Your task to perform on an android device: find which apps use the phone's location Image 0: 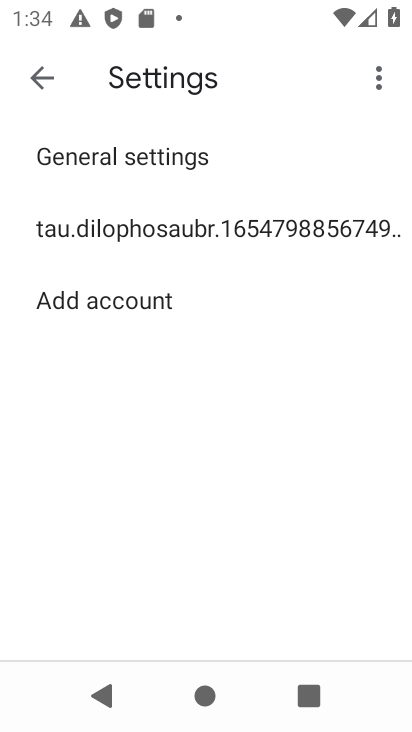
Step 0: press home button
Your task to perform on an android device: find which apps use the phone's location Image 1: 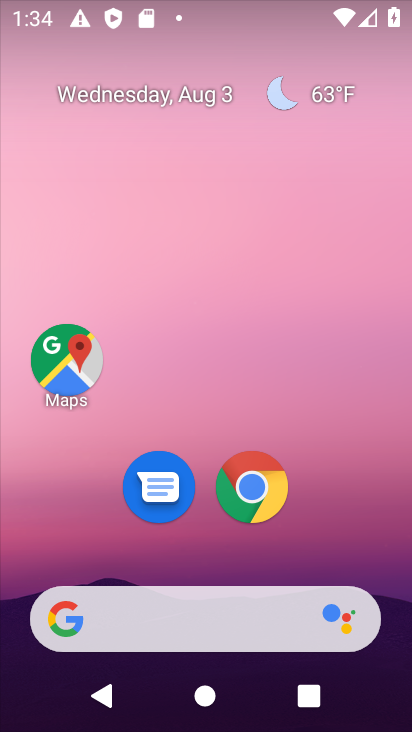
Step 1: drag from (285, 542) to (403, 93)
Your task to perform on an android device: find which apps use the phone's location Image 2: 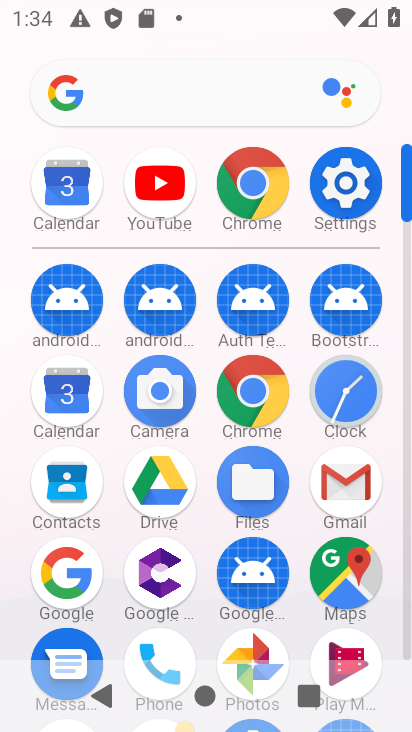
Step 2: click (164, 643)
Your task to perform on an android device: find which apps use the phone's location Image 3: 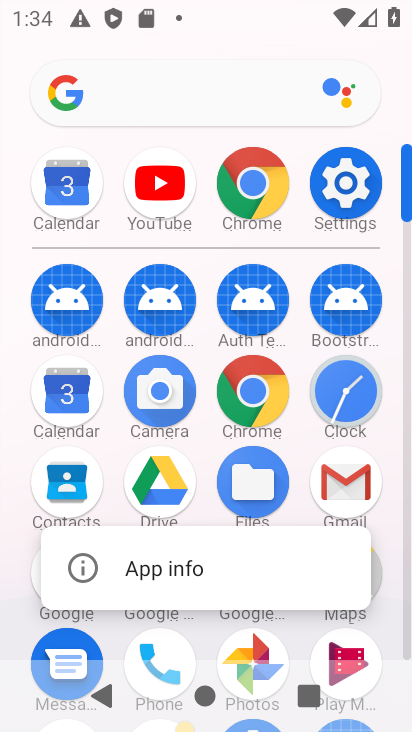
Step 3: click (173, 571)
Your task to perform on an android device: find which apps use the phone's location Image 4: 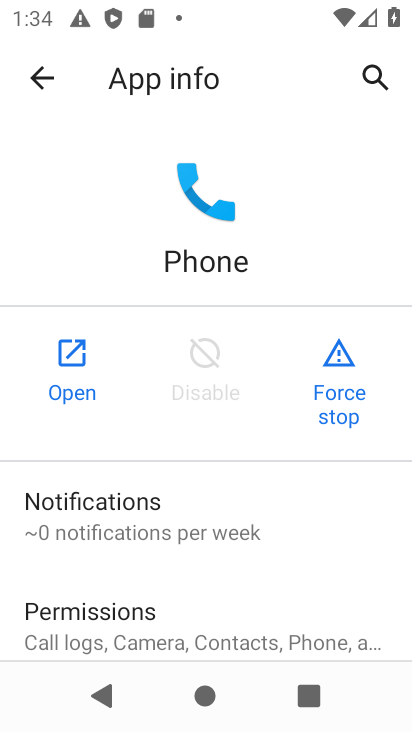
Step 4: drag from (310, 520) to (373, 228)
Your task to perform on an android device: find which apps use the phone's location Image 5: 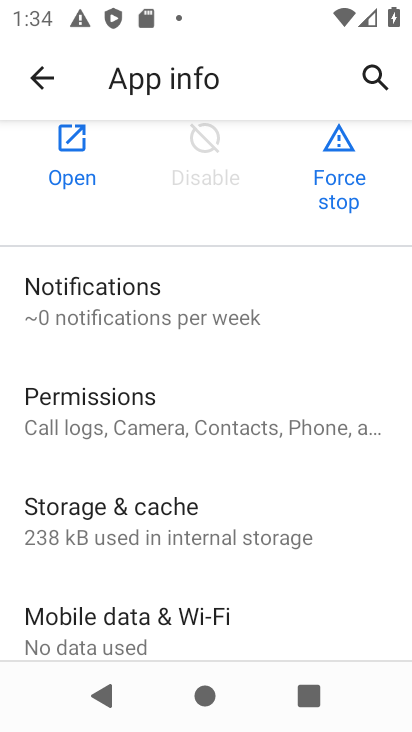
Step 5: click (110, 416)
Your task to perform on an android device: find which apps use the phone's location Image 6: 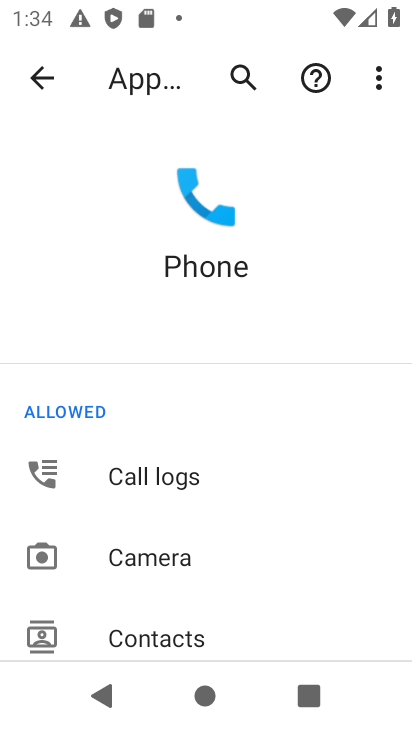
Step 6: drag from (320, 596) to (342, 152)
Your task to perform on an android device: find which apps use the phone's location Image 7: 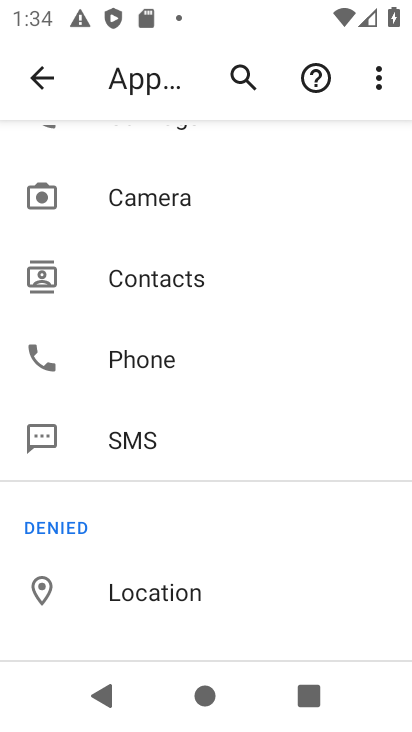
Step 7: click (144, 581)
Your task to perform on an android device: find which apps use the phone's location Image 8: 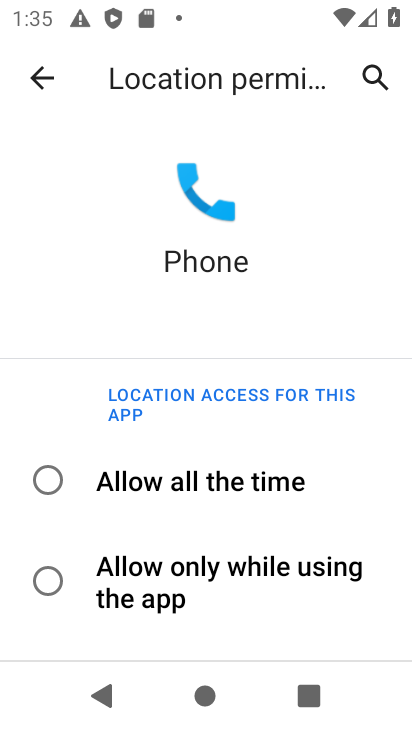
Step 8: task complete